Your task to perform on an android device: create a new album in the google photos Image 0: 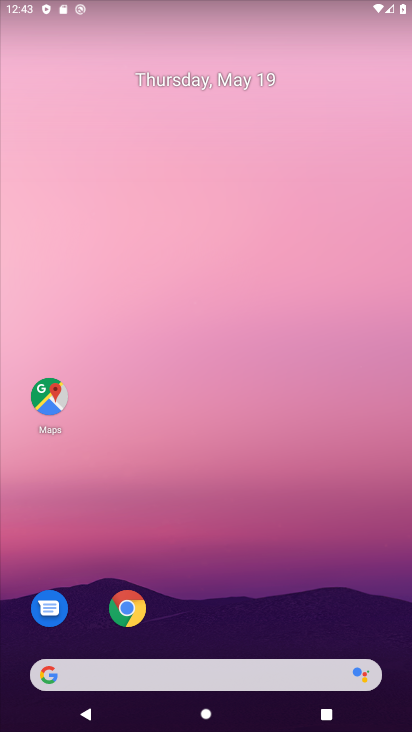
Step 0: drag from (207, 639) to (250, 182)
Your task to perform on an android device: create a new album in the google photos Image 1: 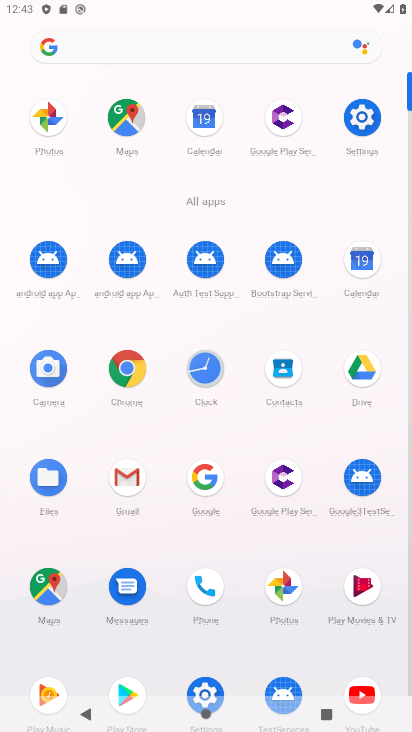
Step 1: click (279, 587)
Your task to perform on an android device: create a new album in the google photos Image 2: 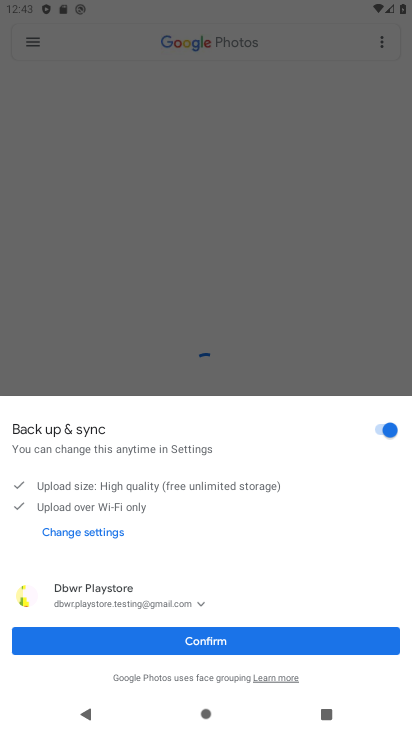
Step 2: click (206, 640)
Your task to perform on an android device: create a new album in the google photos Image 3: 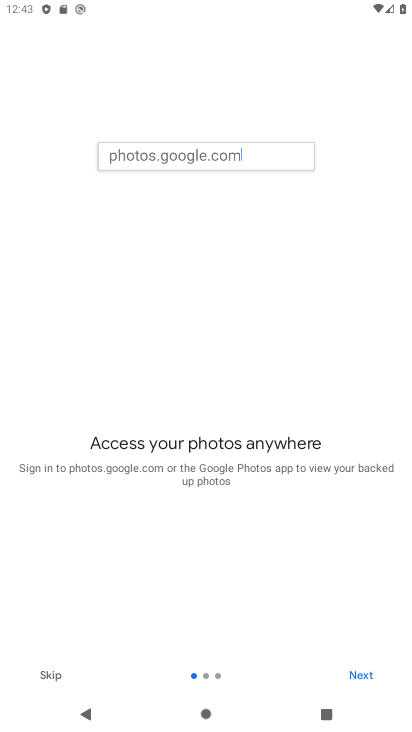
Step 3: click (54, 679)
Your task to perform on an android device: create a new album in the google photos Image 4: 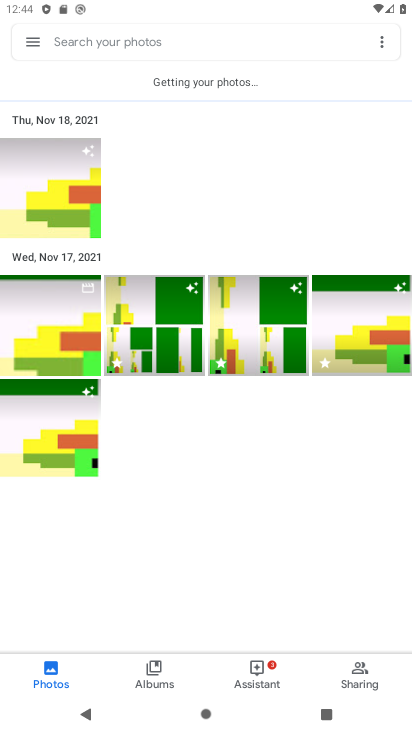
Step 4: click (155, 665)
Your task to perform on an android device: create a new album in the google photos Image 5: 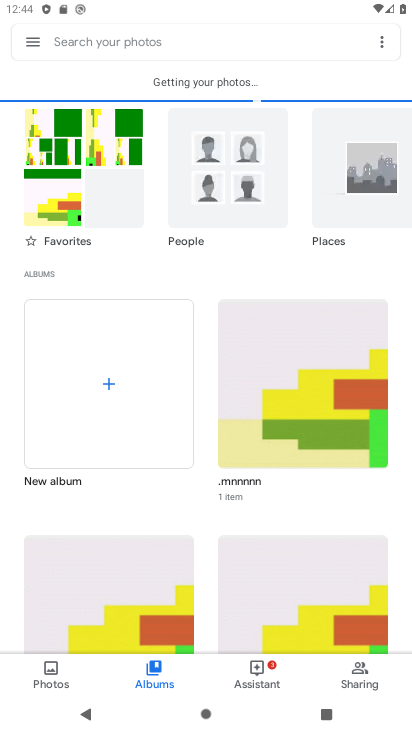
Step 5: click (108, 387)
Your task to perform on an android device: create a new album in the google photos Image 6: 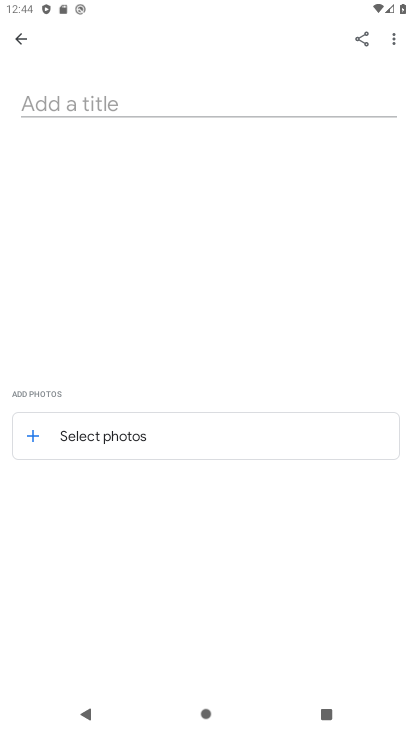
Step 6: click (131, 103)
Your task to perform on an android device: create a new album in the google photos Image 7: 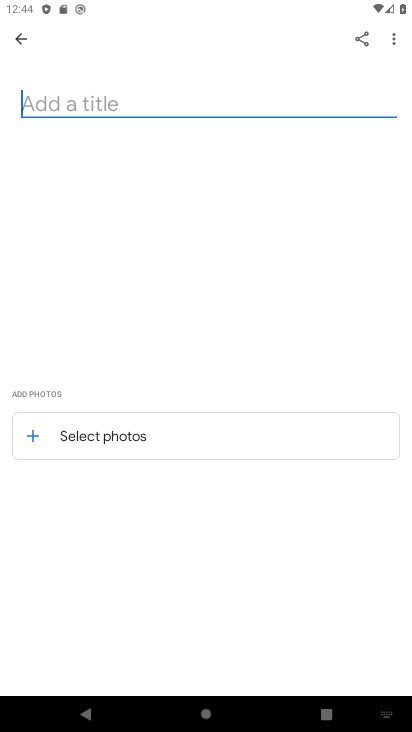
Step 7: type "flames"
Your task to perform on an android device: create a new album in the google photos Image 8: 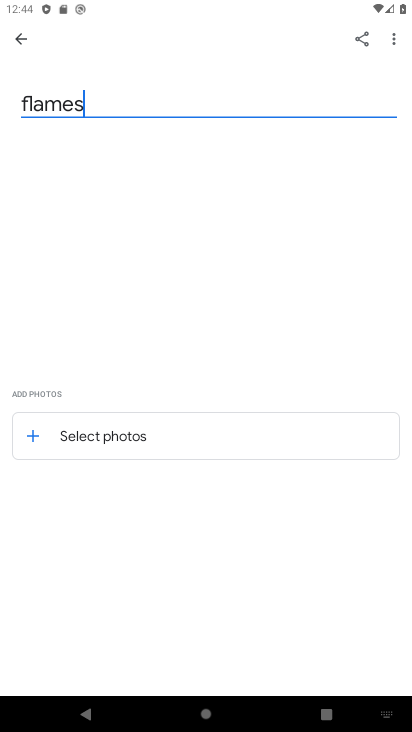
Step 8: click (34, 442)
Your task to perform on an android device: create a new album in the google photos Image 9: 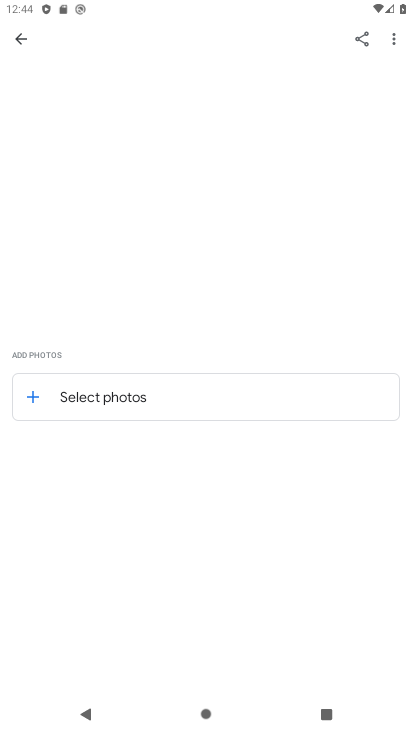
Step 9: click (396, 30)
Your task to perform on an android device: create a new album in the google photos Image 10: 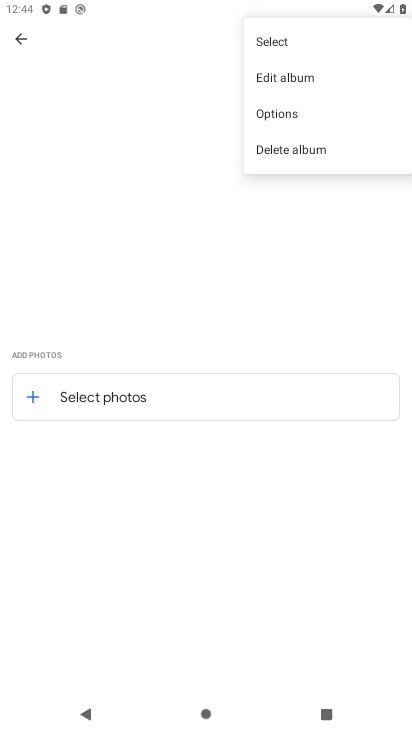
Step 10: click (291, 77)
Your task to perform on an android device: create a new album in the google photos Image 11: 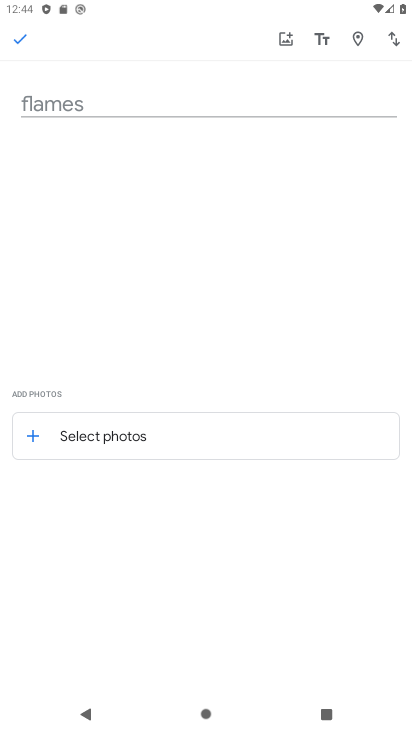
Step 11: click (31, 430)
Your task to perform on an android device: create a new album in the google photos Image 12: 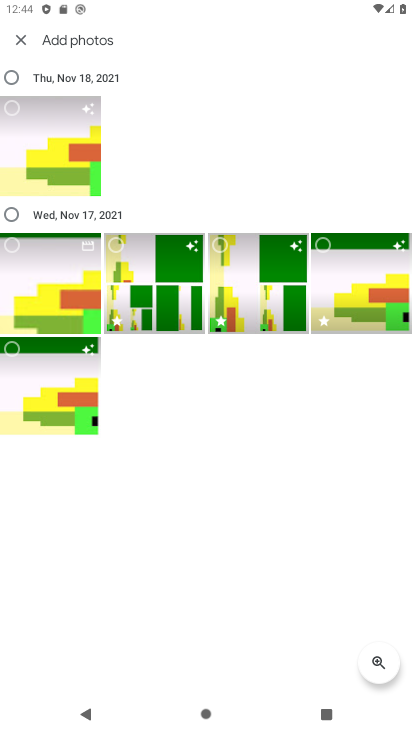
Step 12: click (54, 375)
Your task to perform on an android device: create a new album in the google photos Image 13: 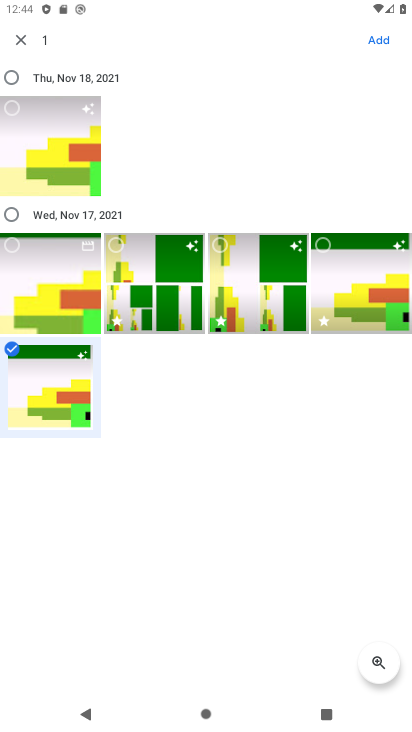
Step 13: click (191, 294)
Your task to perform on an android device: create a new album in the google photos Image 14: 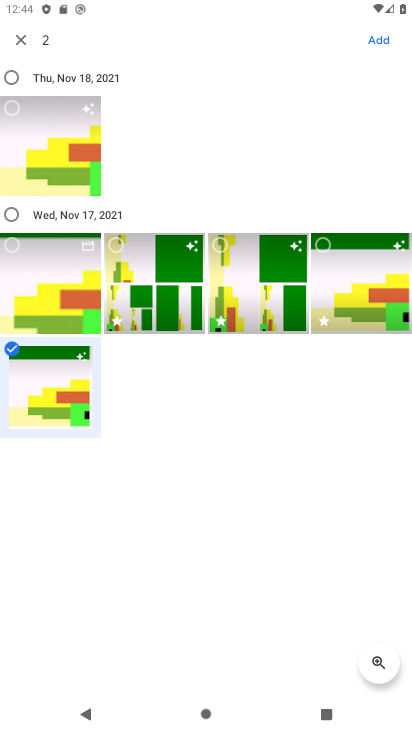
Step 14: click (256, 279)
Your task to perform on an android device: create a new album in the google photos Image 15: 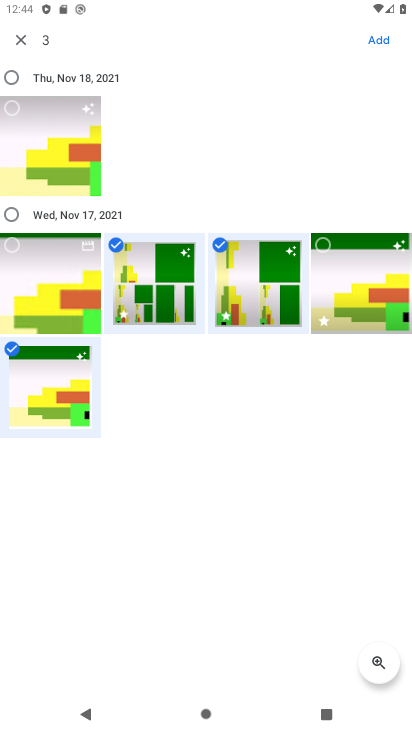
Step 15: click (383, 285)
Your task to perform on an android device: create a new album in the google photos Image 16: 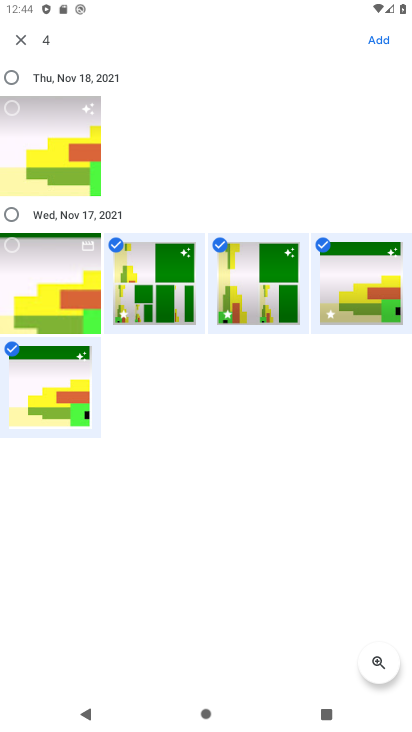
Step 16: click (378, 35)
Your task to perform on an android device: create a new album in the google photos Image 17: 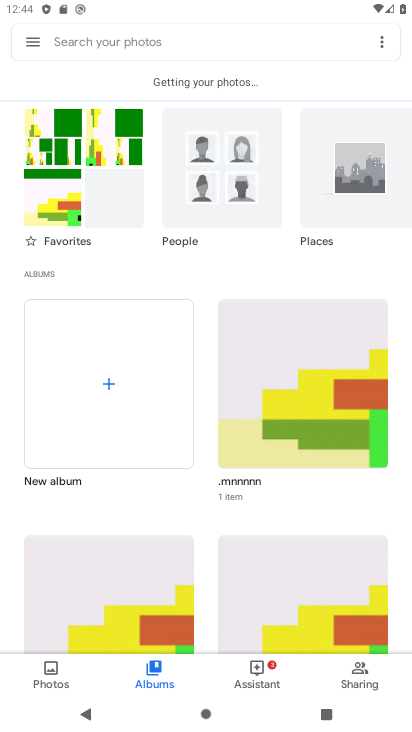
Step 17: task complete